Your task to perform on an android device: delete browsing data in the chrome app Image 0: 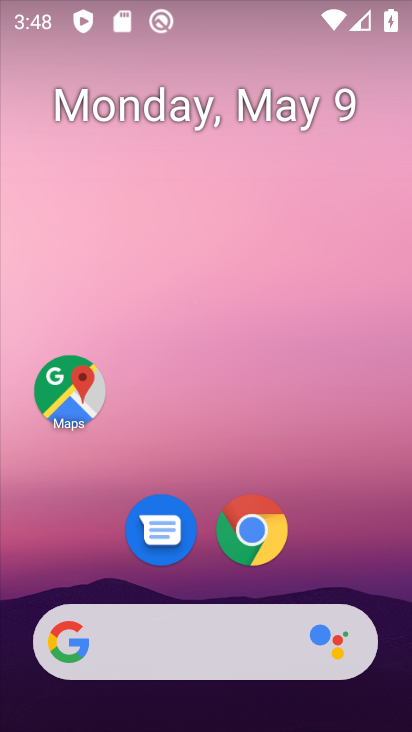
Step 0: click (251, 540)
Your task to perform on an android device: delete browsing data in the chrome app Image 1: 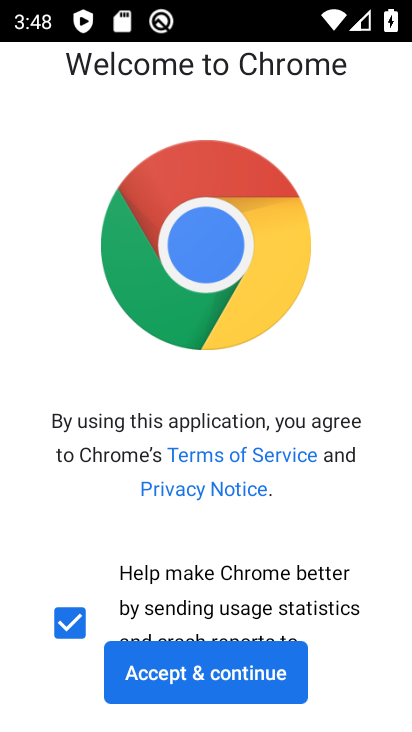
Step 1: click (213, 680)
Your task to perform on an android device: delete browsing data in the chrome app Image 2: 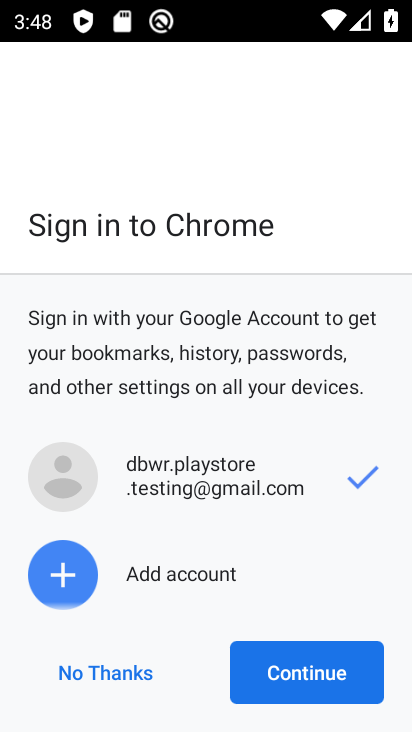
Step 2: click (310, 679)
Your task to perform on an android device: delete browsing data in the chrome app Image 3: 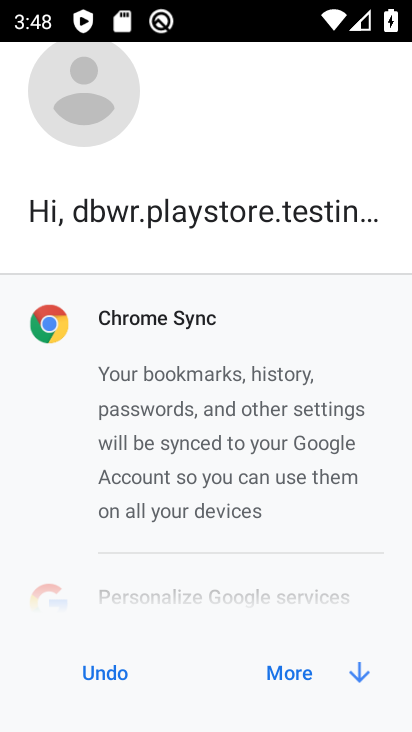
Step 3: click (303, 664)
Your task to perform on an android device: delete browsing data in the chrome app Image 4: 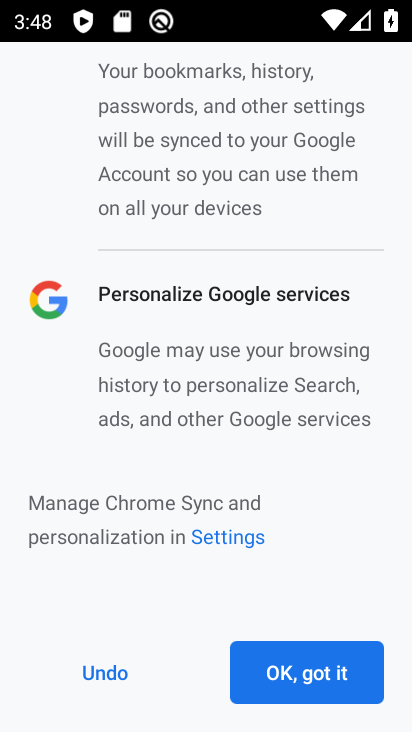
Step 4: click (322, 679)
Your task to perform on an android device: delete browsing data in the chrome app Image 5: 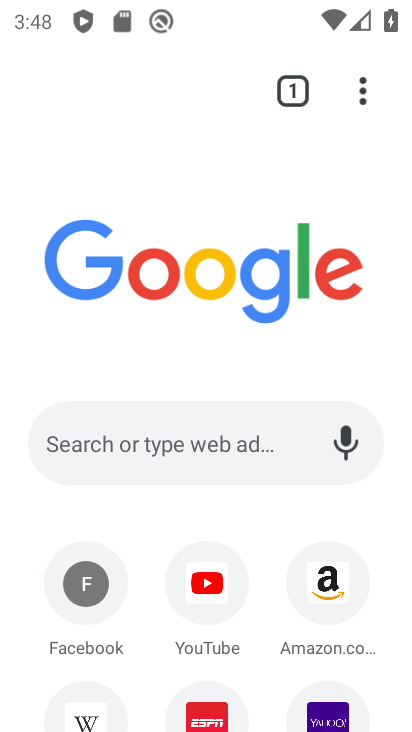
Step 5: click (353, 98)
Your task to perform on an android device: delete browsing data in the chrome app Image 6: 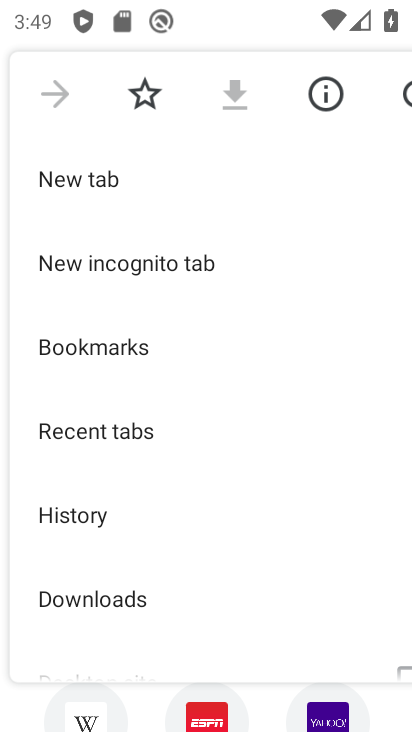
Step 6: click (125, 512)
Your task to perform on an android device: delete browsing data in the chrome app Image 7: 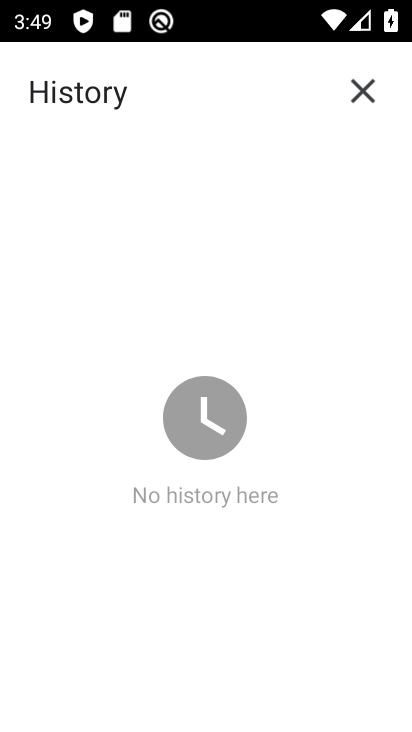
Step 7: task complete